Your task to perform on an android device: Go to Yahoo.com Image 0: 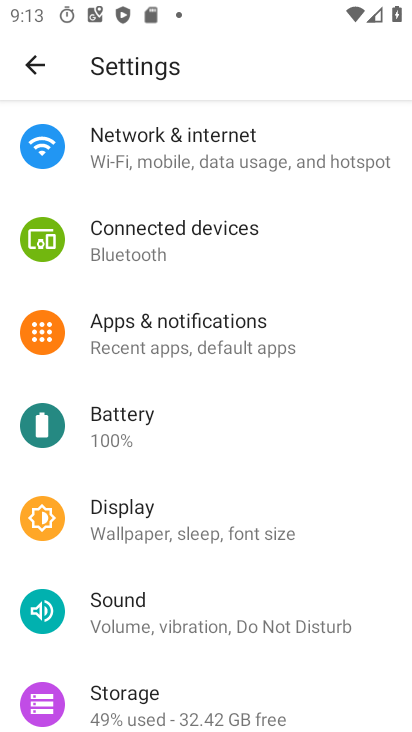
Step 0: press home button
Your task to perform on an android device: Go to Yahoo.com Image 1: 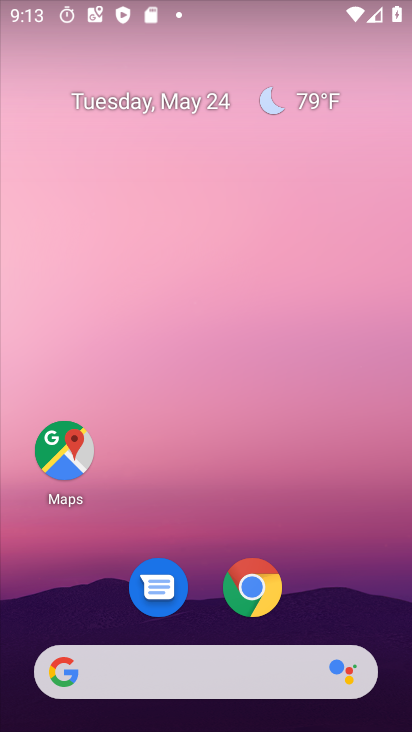
Step 1: click (253, 587)
Your task to perform on an android device: Go to Yahoo.com Image 2: 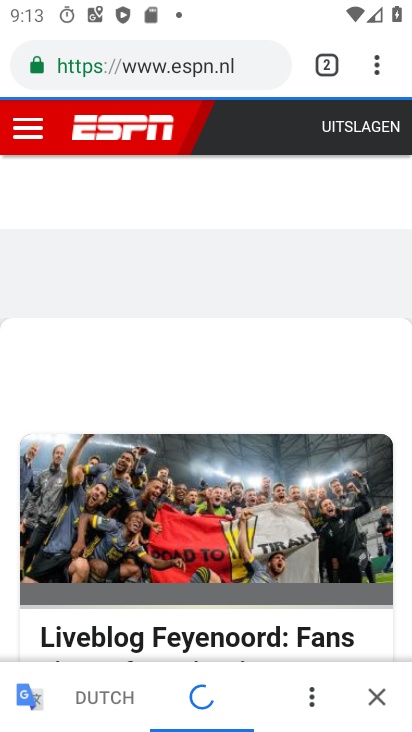
Step 2: click (246, 60)
Your task to perform on an android device: Go to Yahoo.com Image 3: 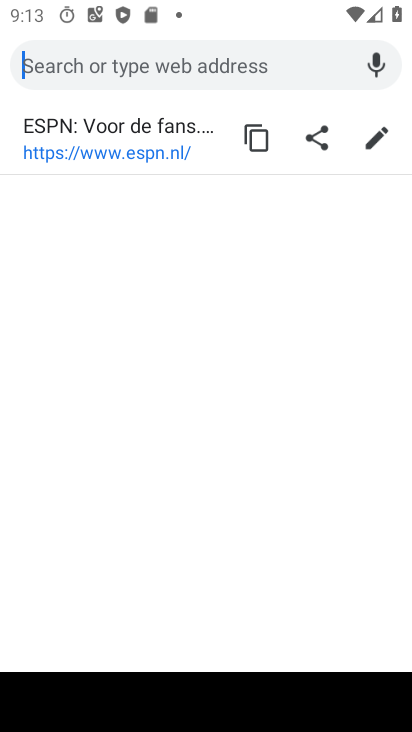
Step 3: type "Yahoo.com"
Your task to perform on an android device: Go to Yahoo.com Image 4: 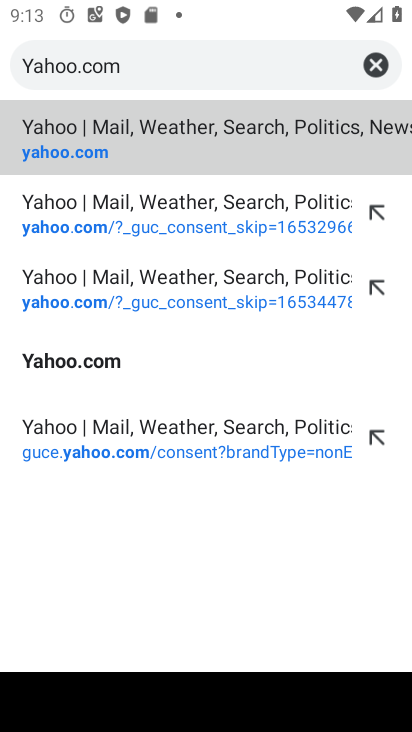
Step 4: click (59, 369)
Your task to perform on an android device: Go to Yahoo.com Image 5: 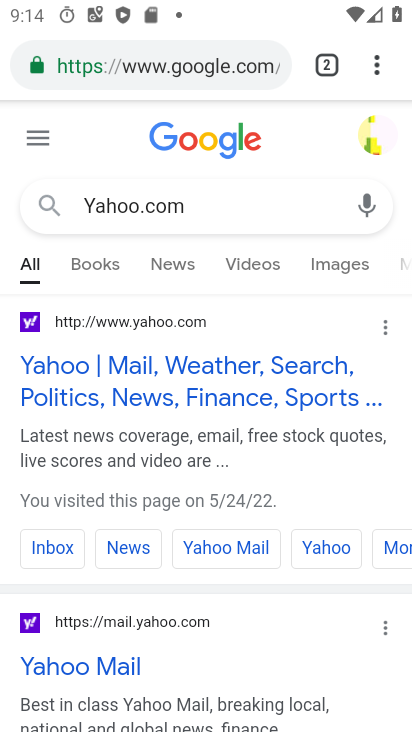
Step 5: click (105, 371)
Your task to perform on an android device: Go to Yahoo.com Image 6: 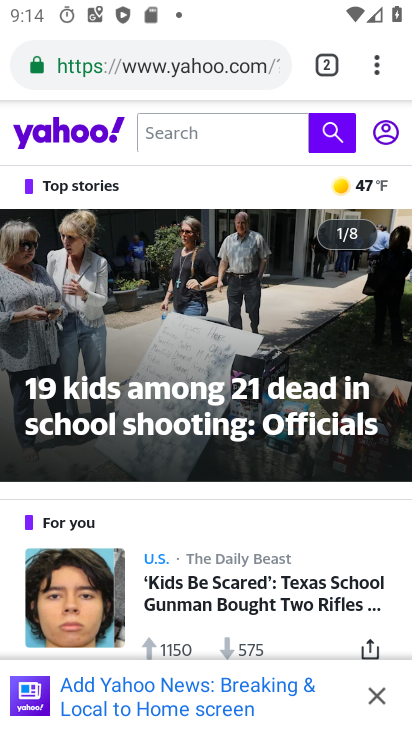
Step 6: task complete